Your task to perform on an android device: Open eBay Image 0: 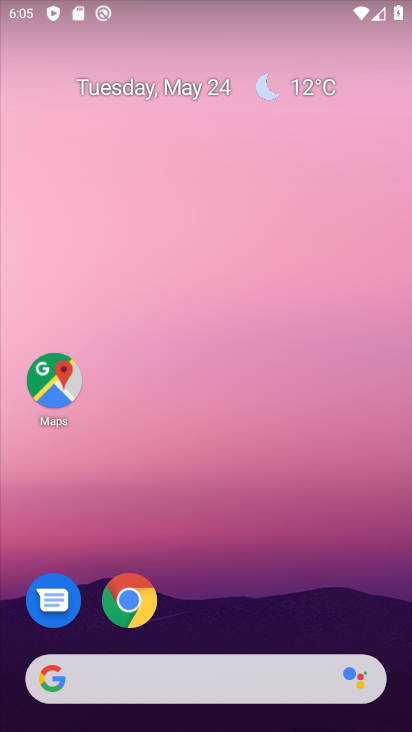
Step 0: drag from (259, 659) to (208, 53)
Your task to perform on an android device: Open eBay Image 1: 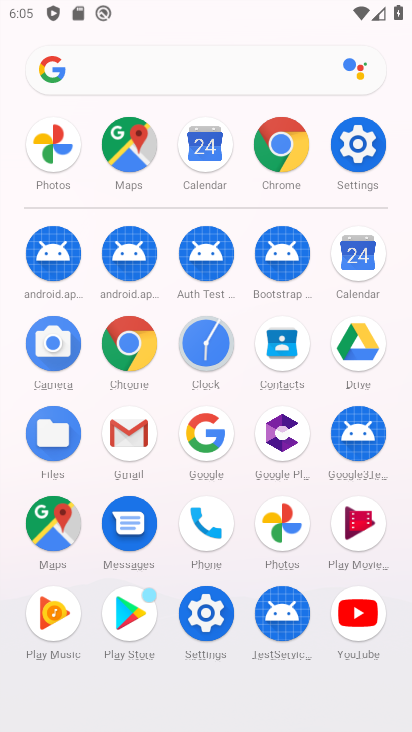
Step 1: click (147, 353)
Your task to perform on an android device: Open eBay Image 2: 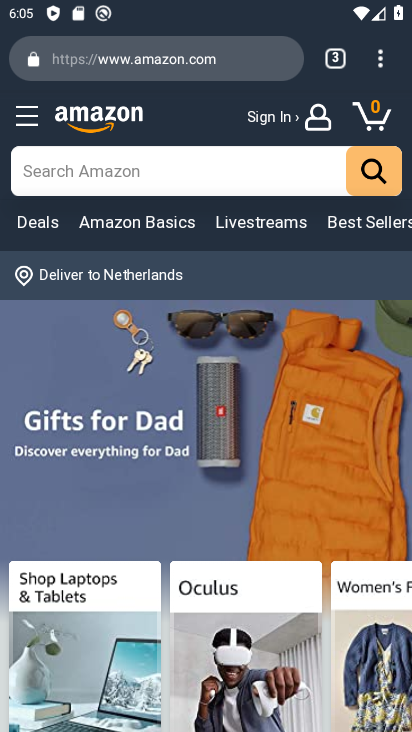
Step 2: click (218, 81)
Your task to perform on an android device: Open eBay Image 3: 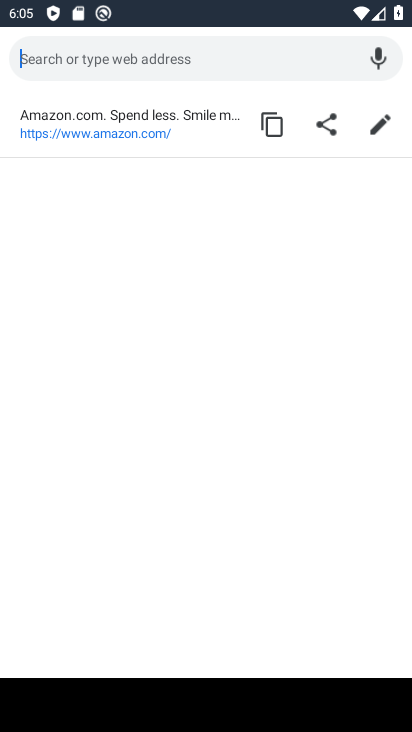
Step 3: type "ebay"
Your task to perform on an android device: Open eBay Image 4: 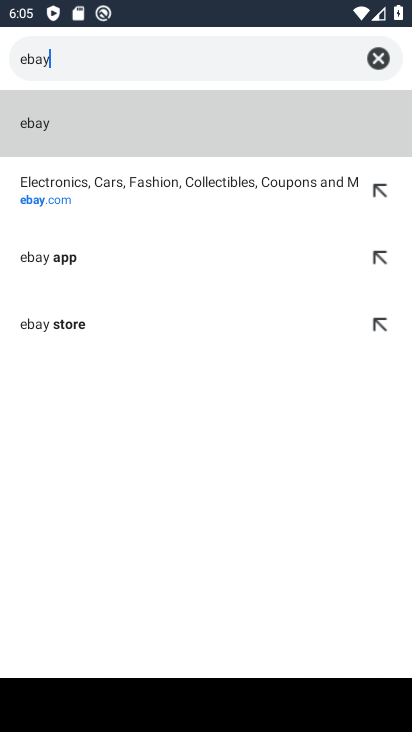
Step 4: click (156, 191)
Your task to perform on an android device: Open eBay Image 5: 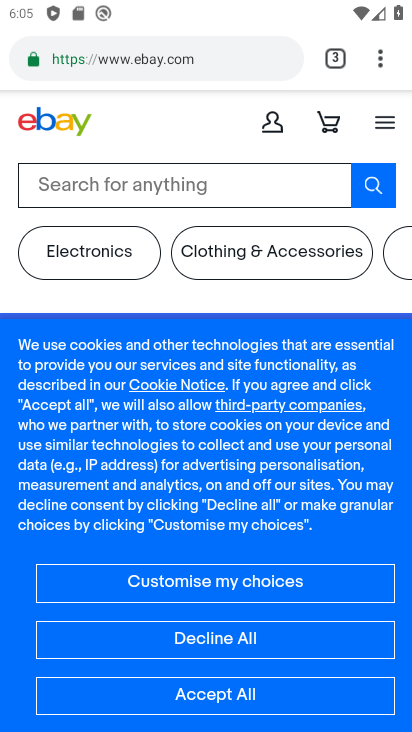
Step 5: task complete